Your task to perform on an android device: open app "PlayWell" Image 0: 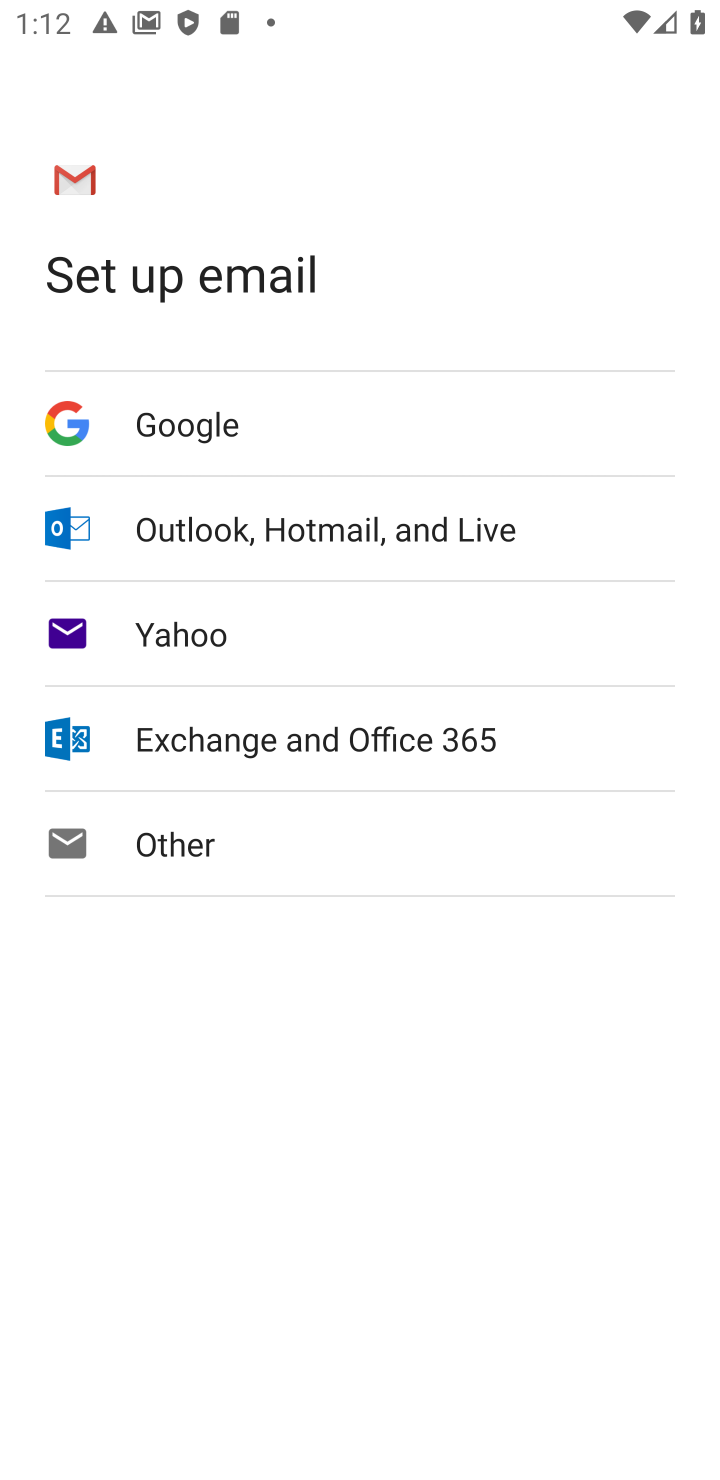
Step 0: press back button
Your task to perform on an android device: open app "PlayWell" Image 1: 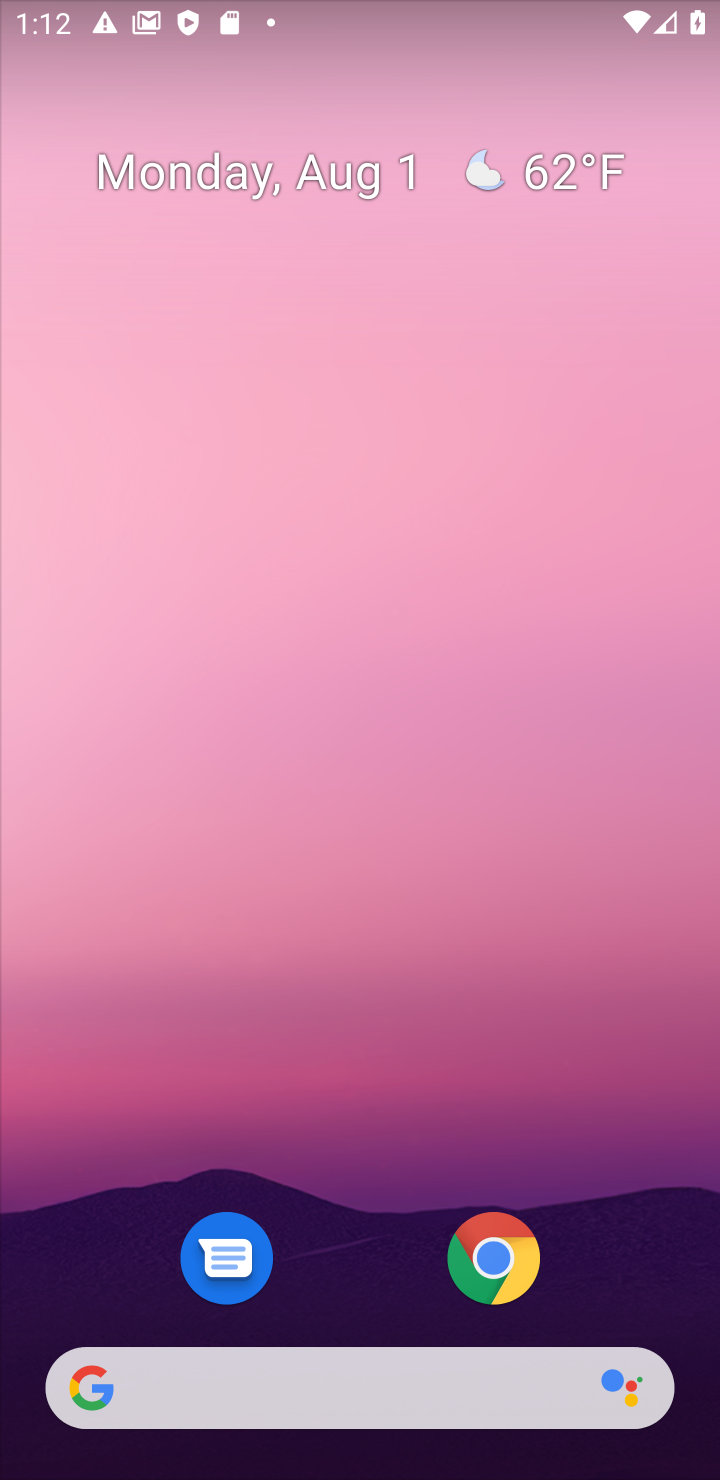
Step 1: drag from (275, 843) to (335, 109)
Your task to perform on an android device: open app "PlayWell" Image 2: 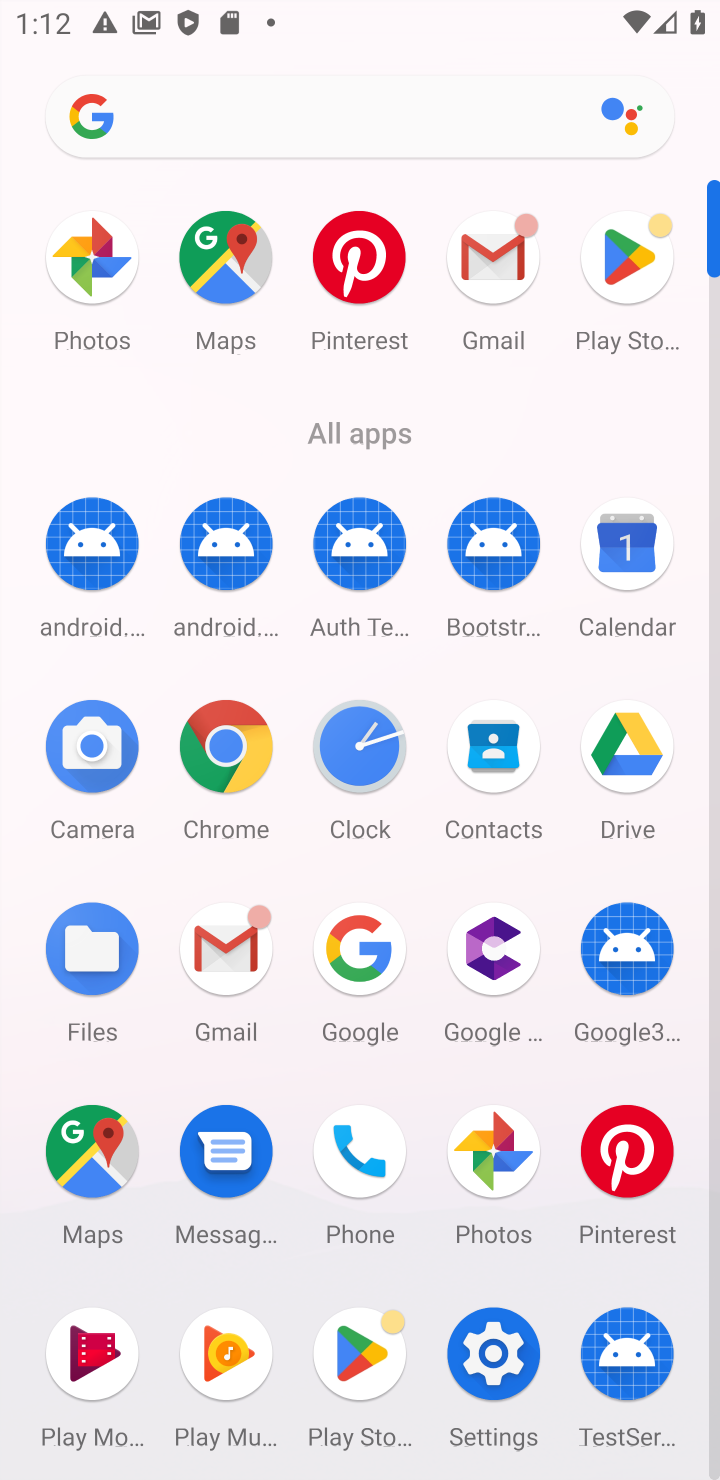
Step 2: click (627, 259)
Your task to perform on an android device: open app "PlayWell" Image 3: 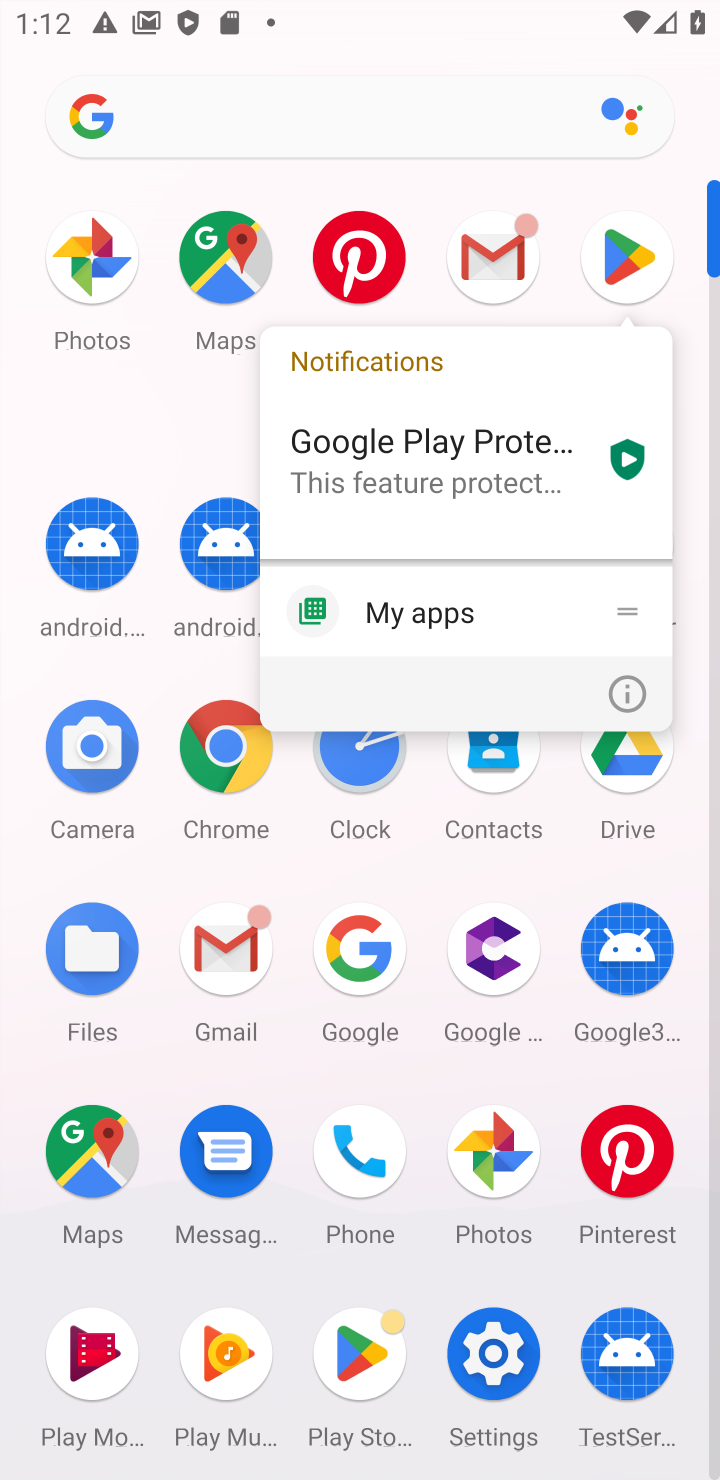
Step 3: click (638, 257)
Your task to perform on an android device: open app "PlayWell" Image 4: 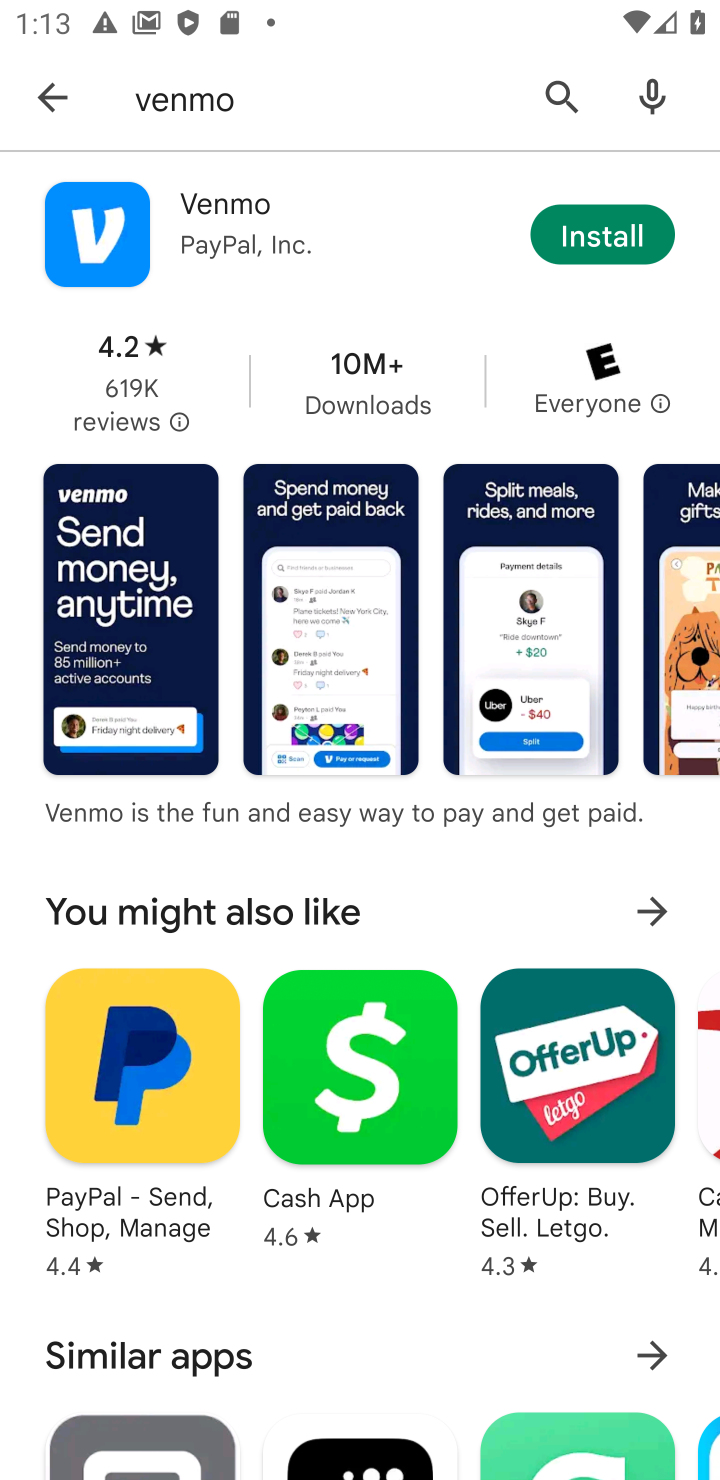
Step 4: click (561, 82)
Your task to perform on an android device: open app "PlayWell" Image 5: 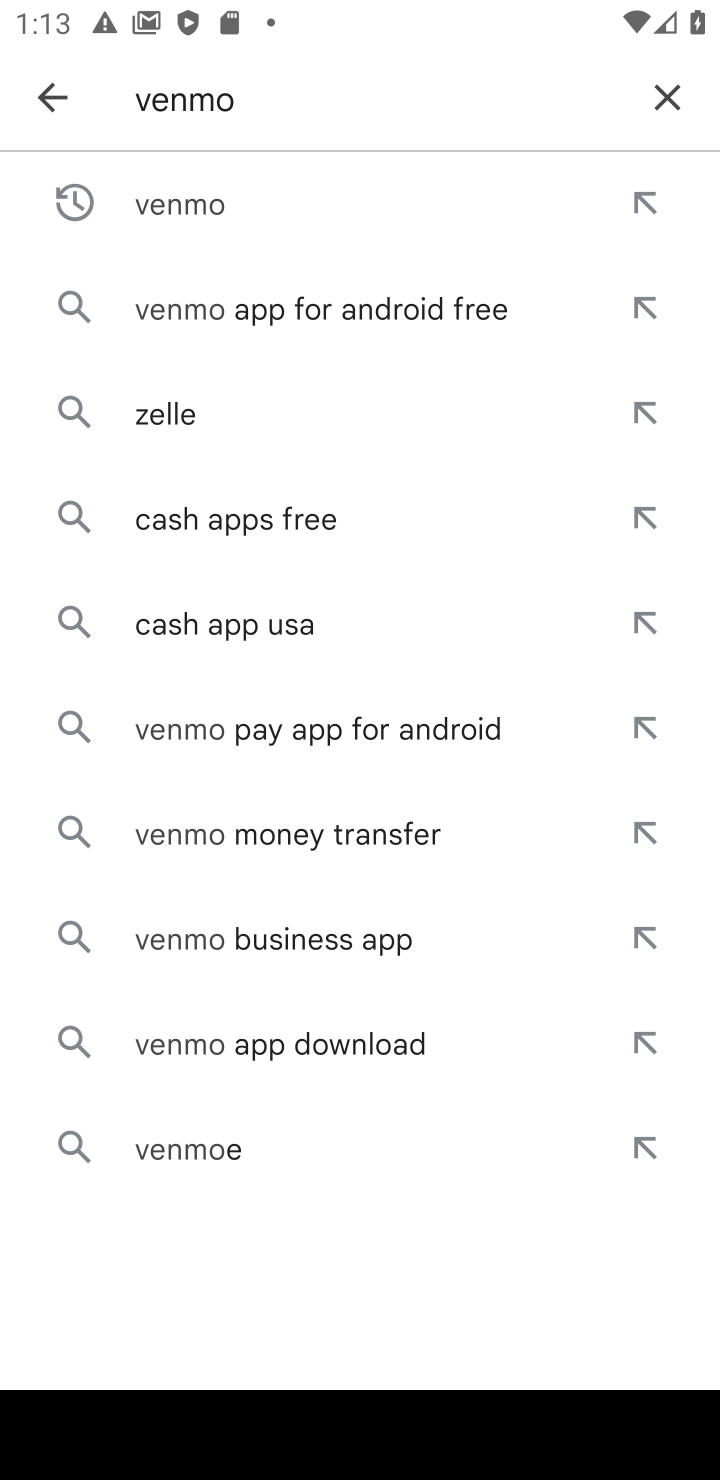
Step 5: click (673, 85)
Your task to perform on an android device: open app "PlayWell" Image 6: 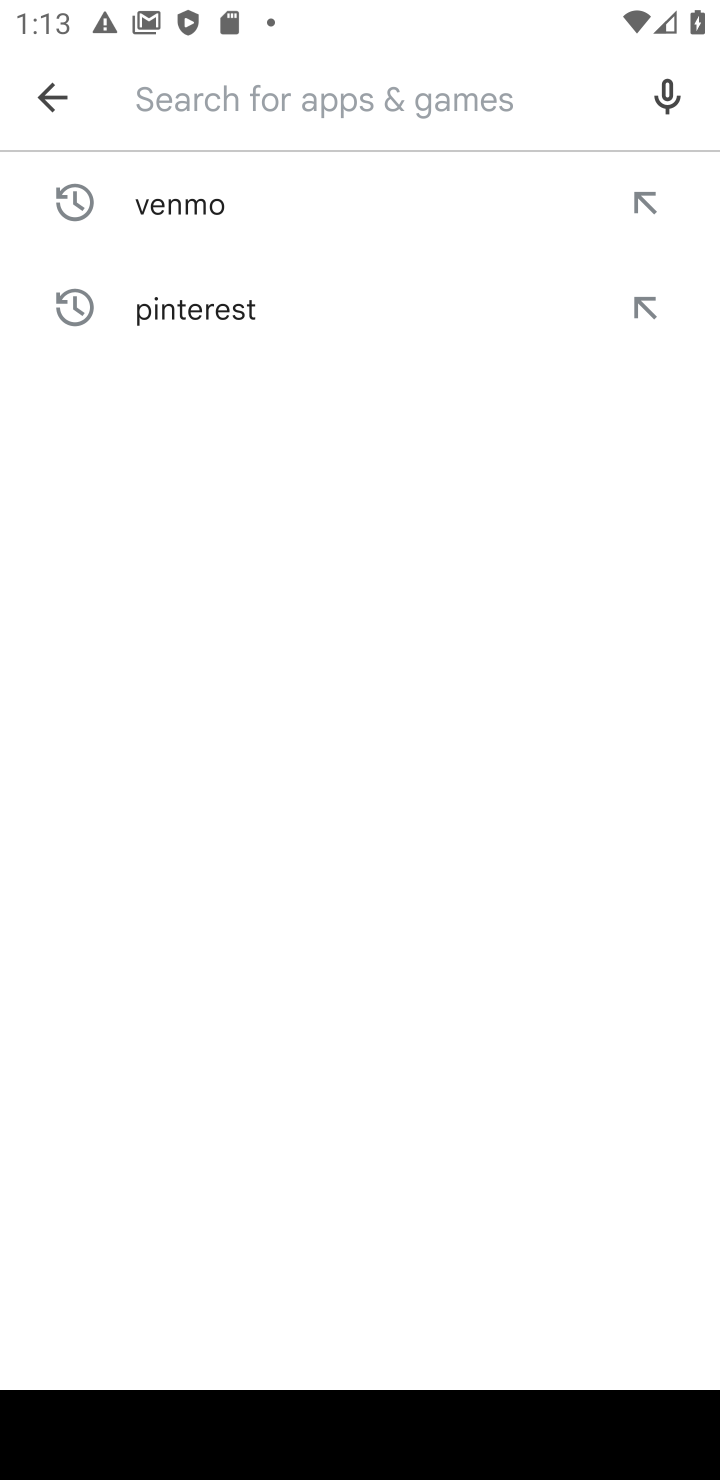
Step 6: click (263, 95)
Your task to perform on an android device: open app "PlayWell" Image 7: 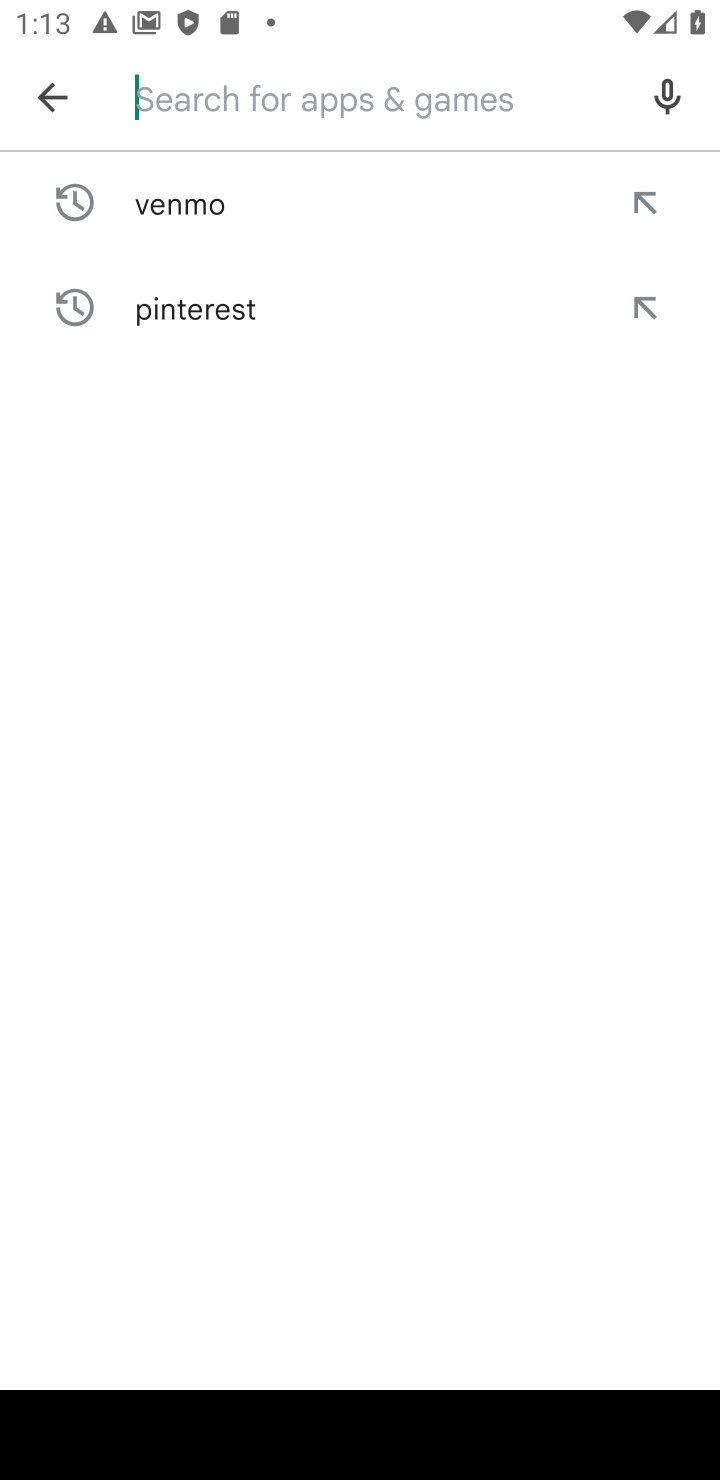
Step 7: type "playwell"
Your task to perform on an android device: open app "PlayWell" Image 8: 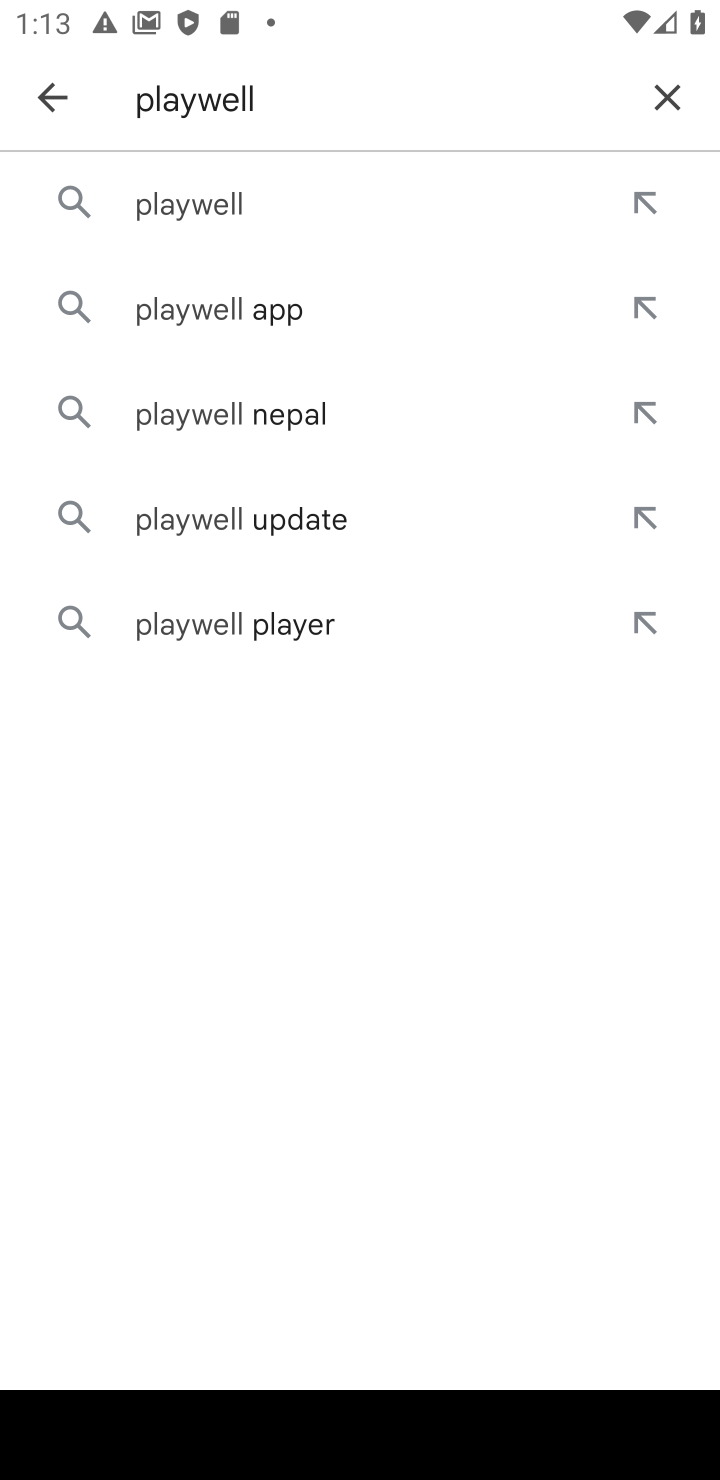
Step 8: click (195, 207)
Your task to perform on an android device: open app "PlayWell" Image 9: 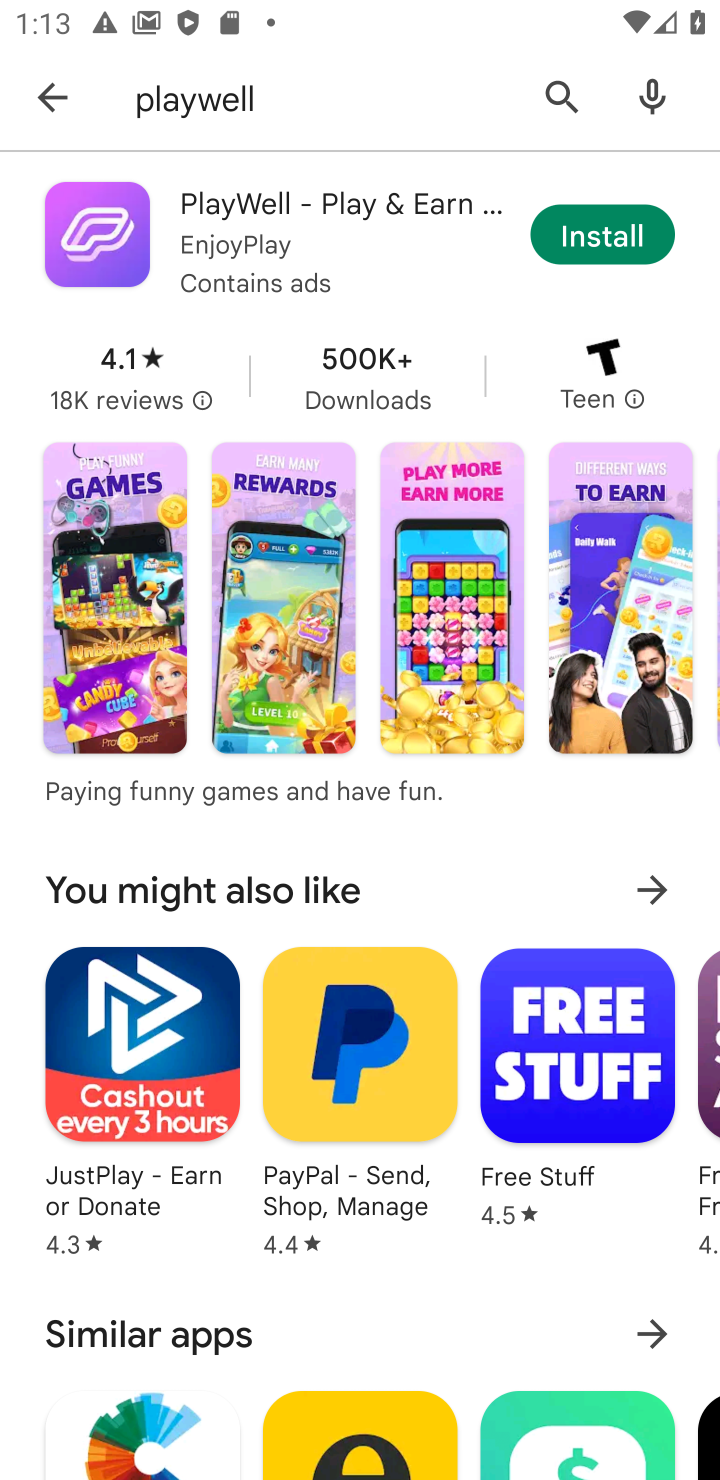
Step 9: task complete